Your task to perform on an android device: install app "Skype" Image 0: 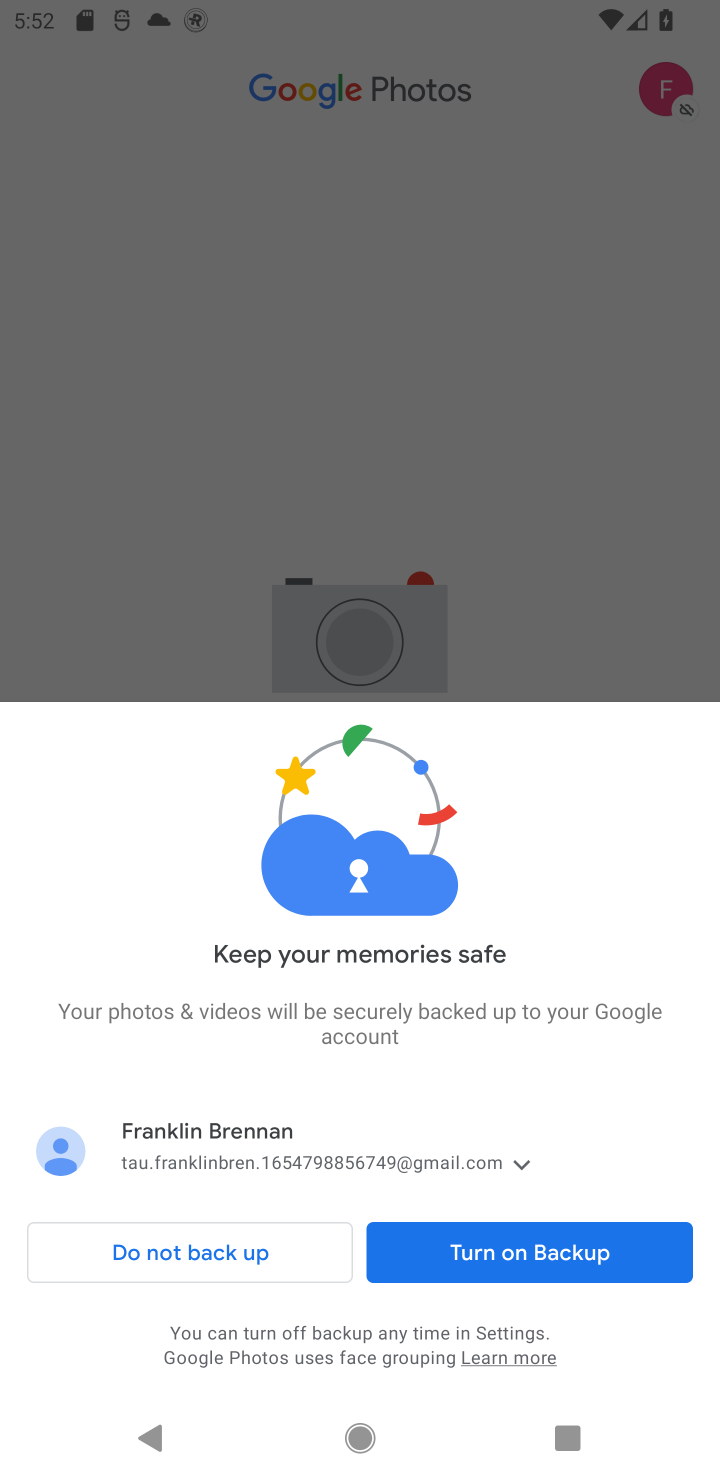
Step 0: press home button
Your task to perform on an android device: install app "Skype" Image 1: 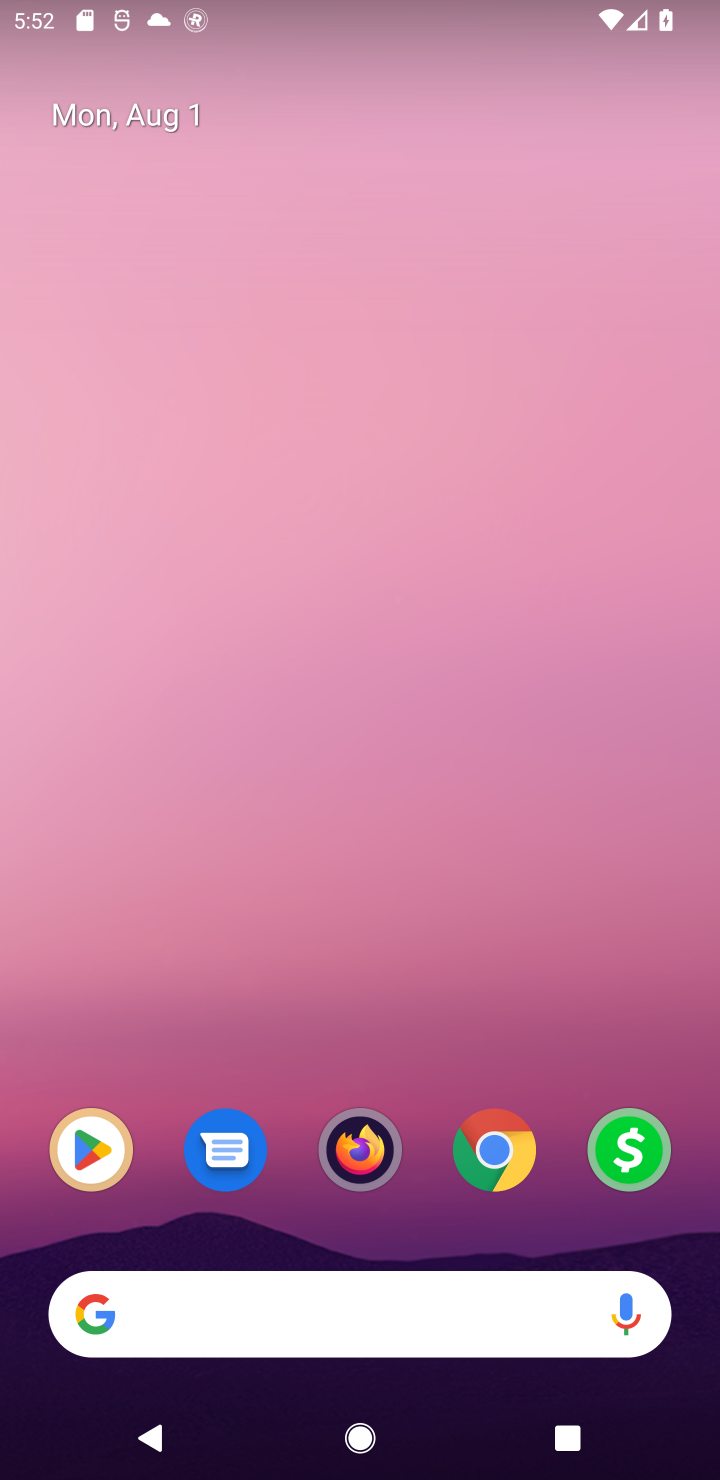
Step 1: drag from (297, 1234) to (320, 64)
Your task to perform on an android device: install app "Skype" Image 2: 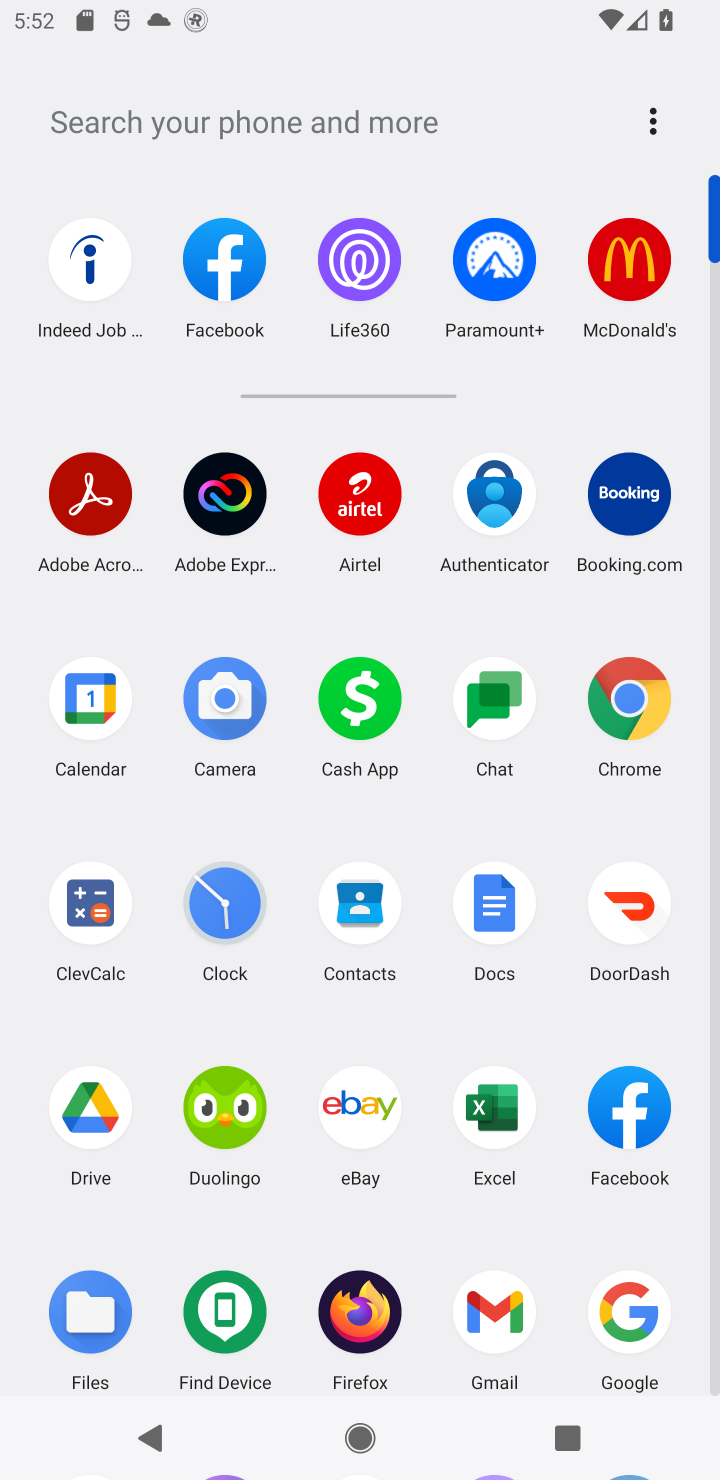
Step 2: click (718, 1377)
Your task to perform on an android device: install app "Skype" Image 3: 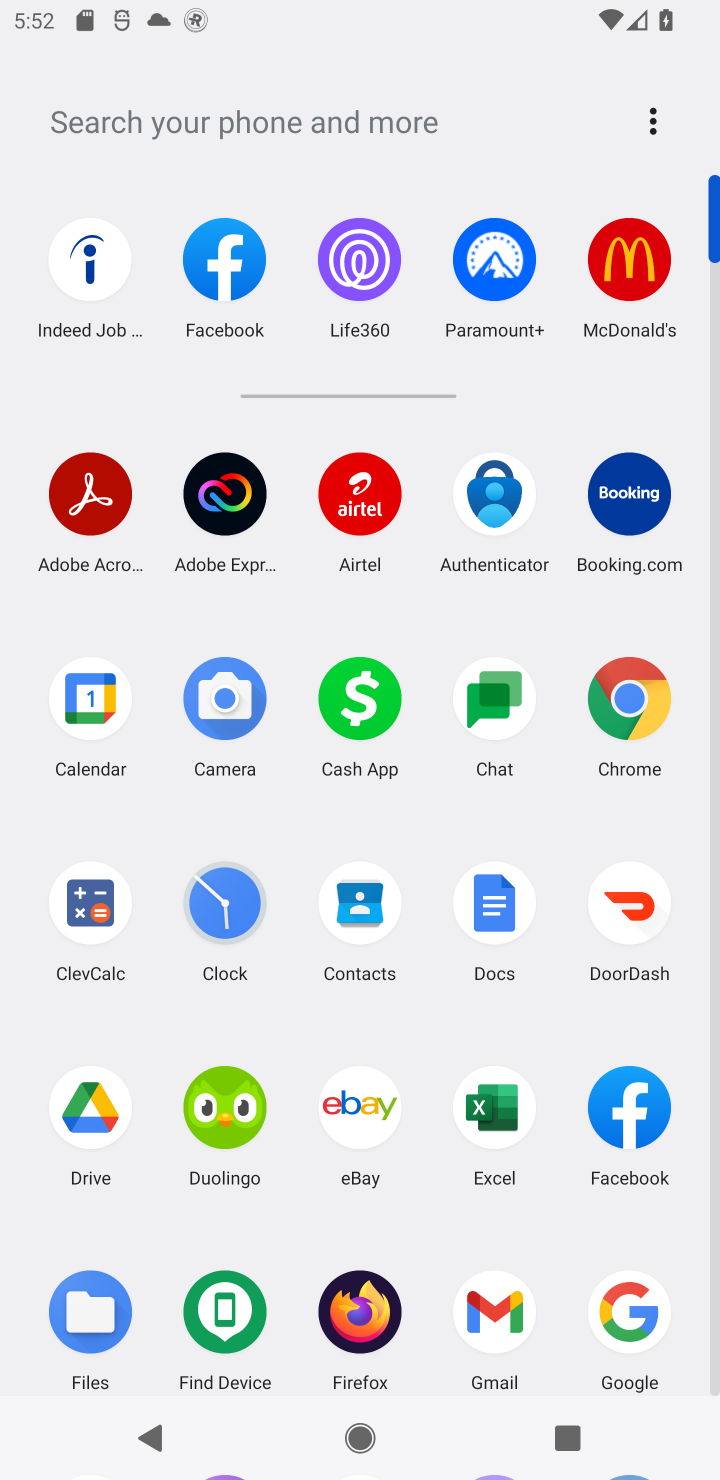
Step 3: click (718, 1377)
Your task to perform on an android device: install app "Skype" Image 4: 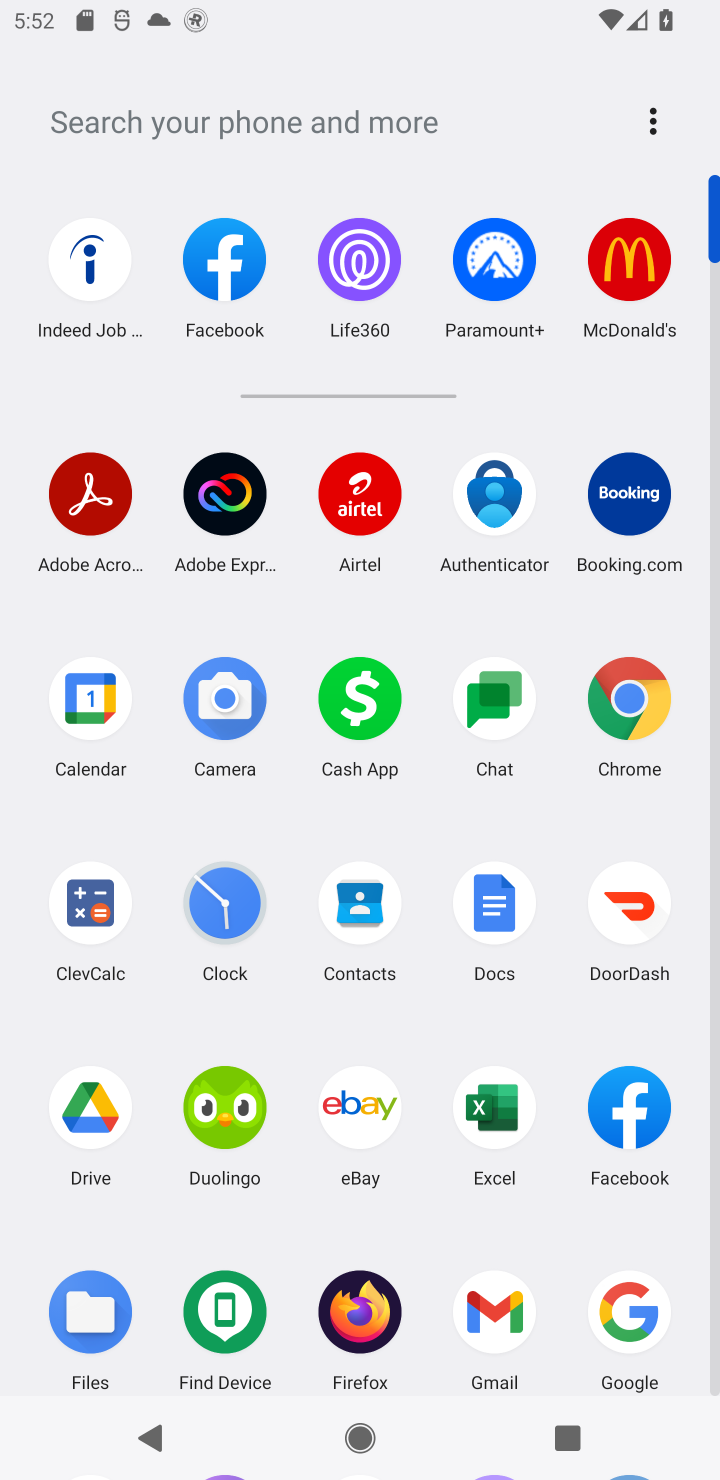
Step 4: click (718, 1377)
Your task to perform on an android device: install app "Skype" Image 5: 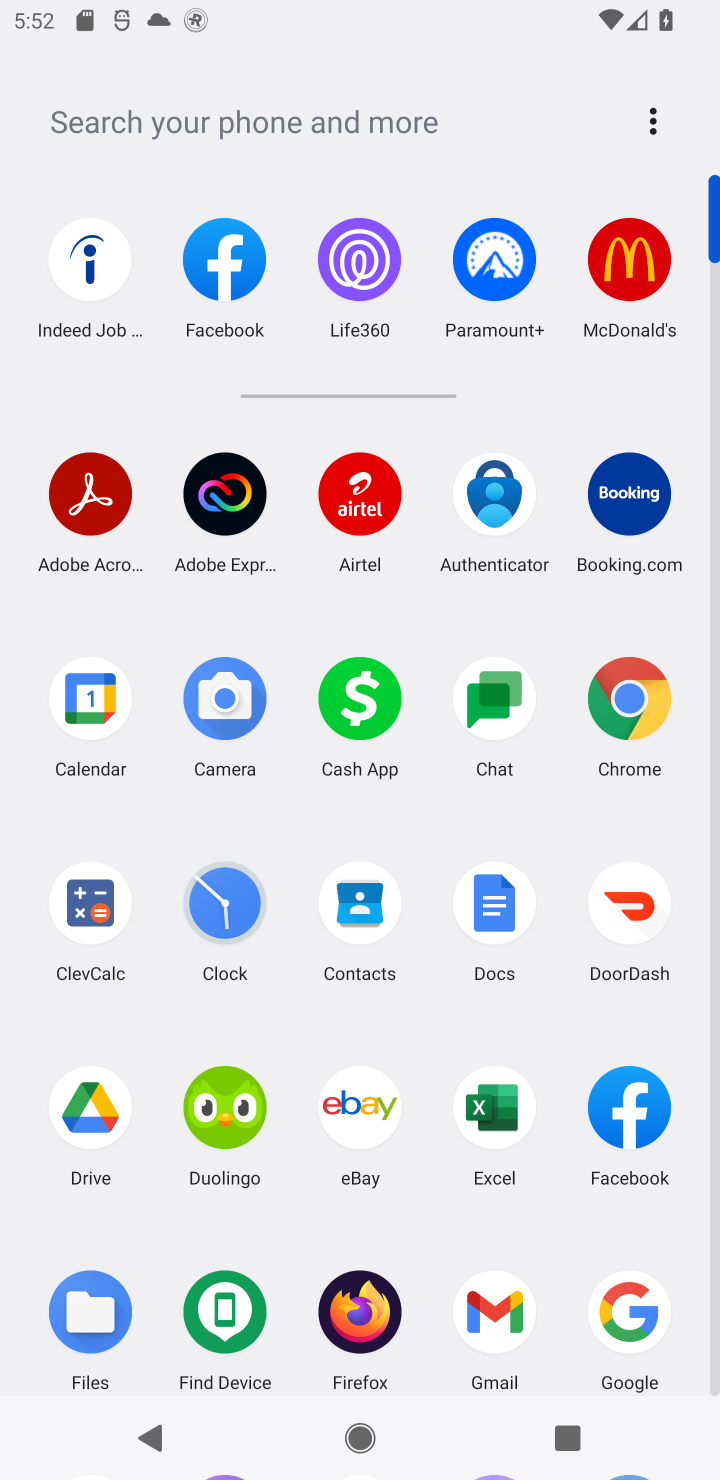
Step 5: click (718, 1377)
Your task to perform on an android device: install app "Skype" Image 6: 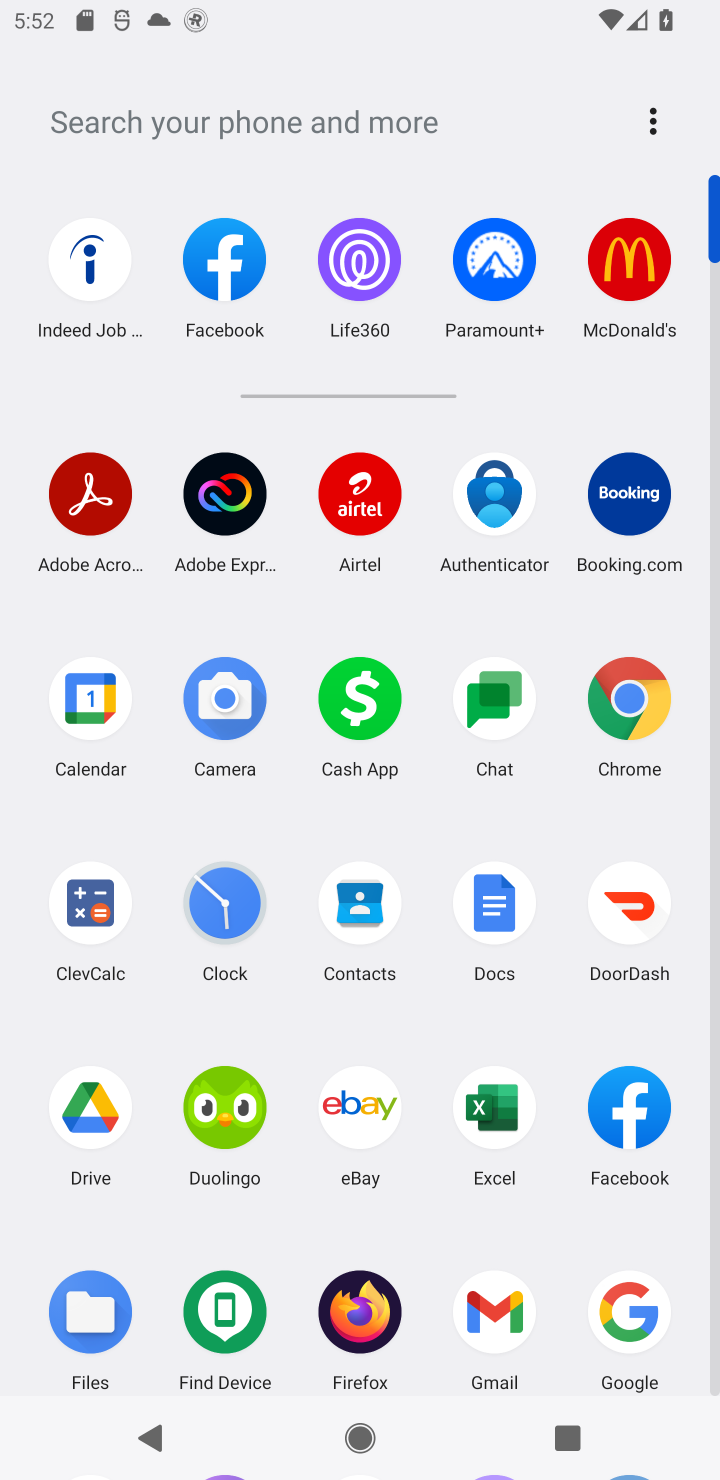
Step 6: click (718, 1377)
Your task to perform on an android device: install app "Skype" Image 7: 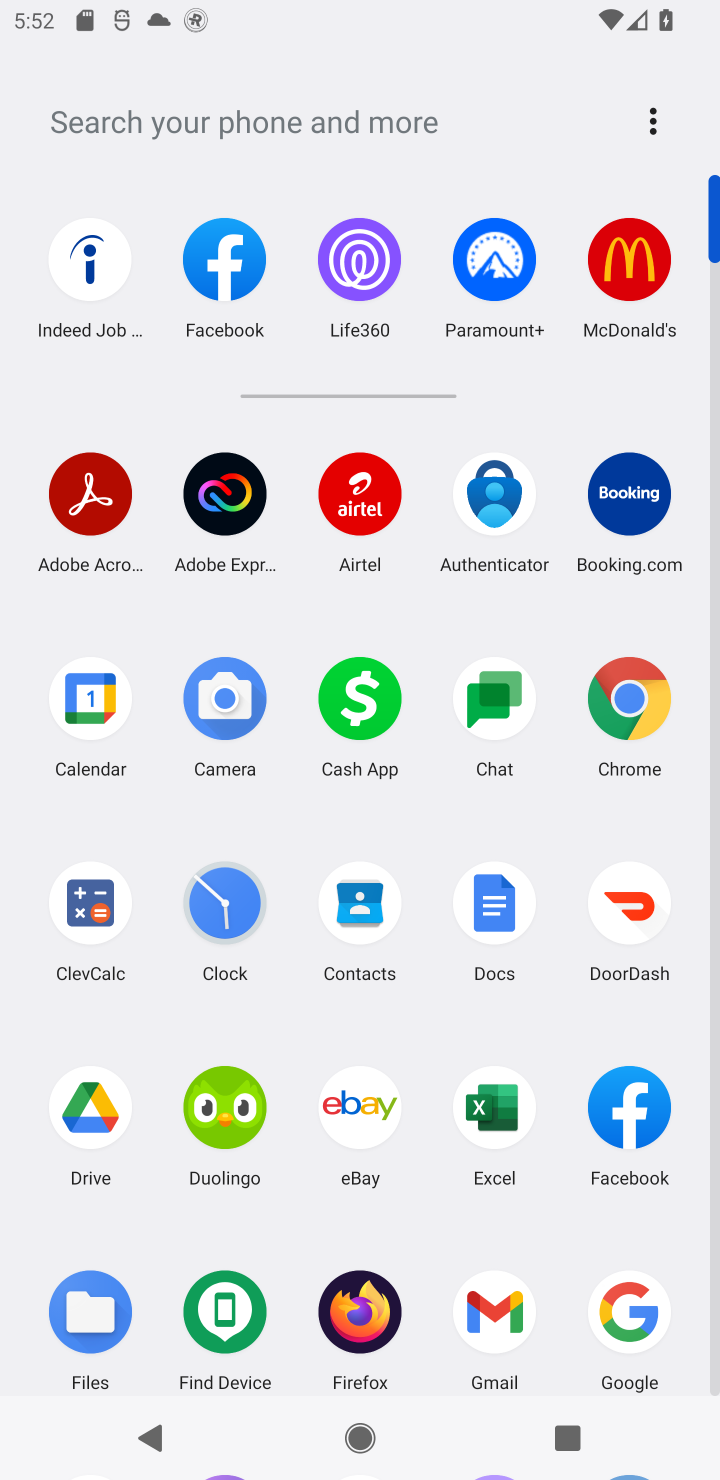
Step 7: task complete